Your task to perform on an android device: Open CNN.com Image 0: 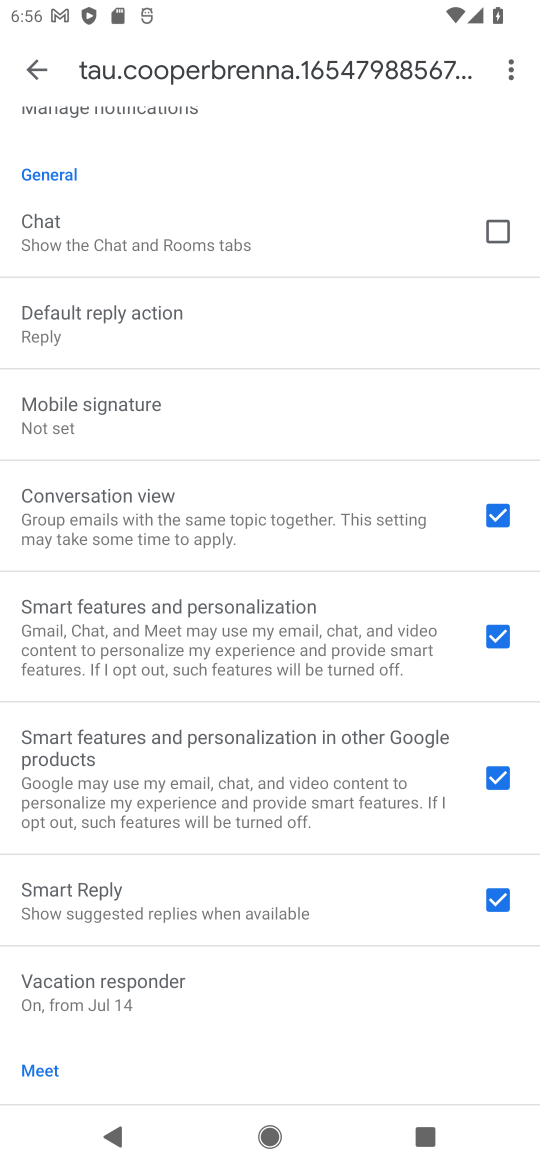
Step 0: press home button
Your task to perform on an android device: Open CNN.com Image 1: 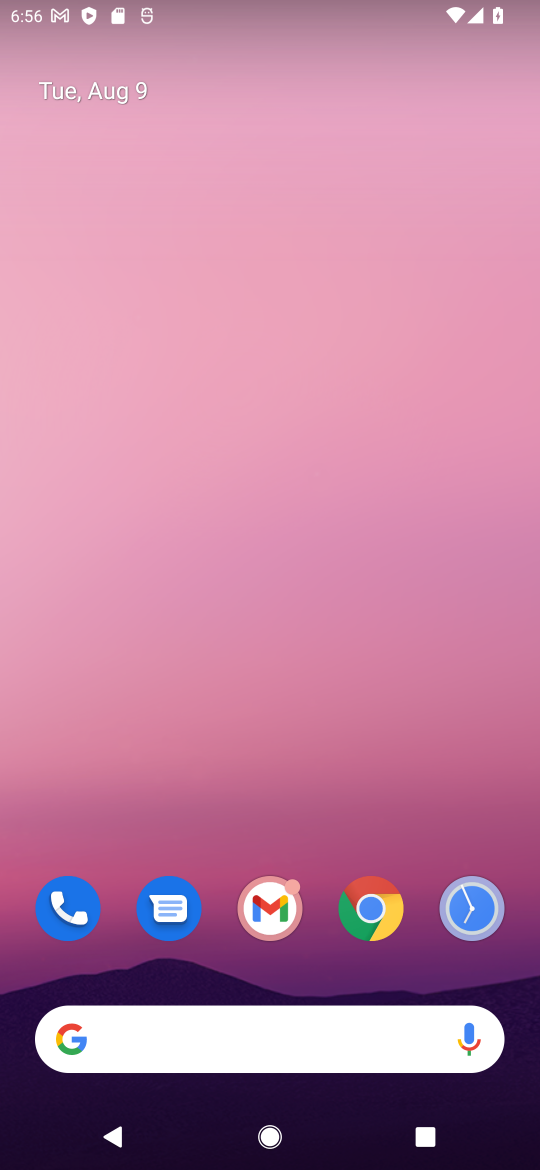
Step 1: drag from (287, 990) to (288, 84)
Your task to perform on an android device: Open CNN.com Image 2: 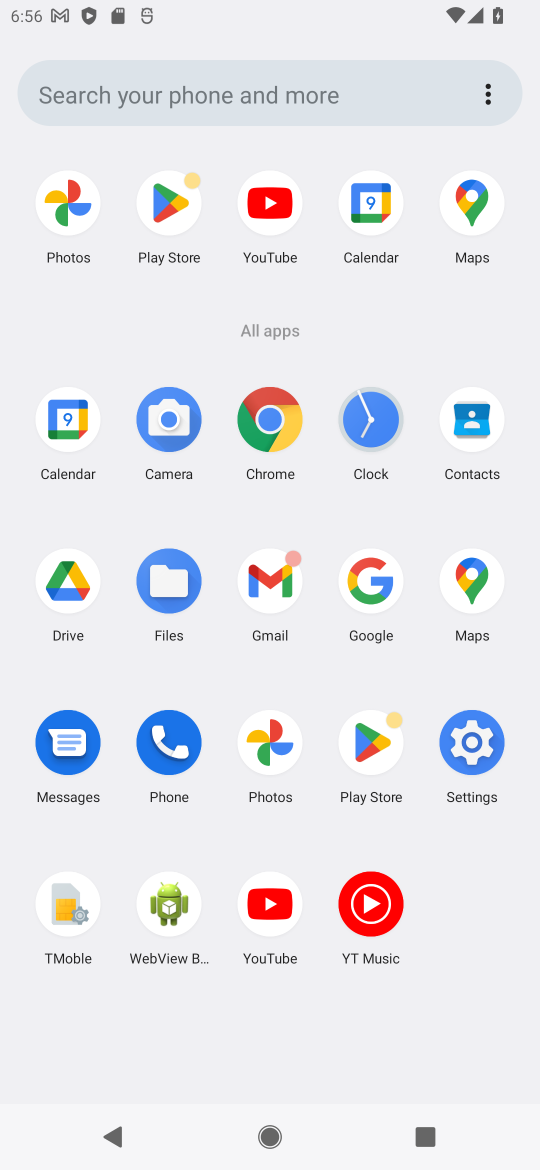
Step 2: click (265, 416)
Your task to perform on an android device: Open CNN.com Image 3: 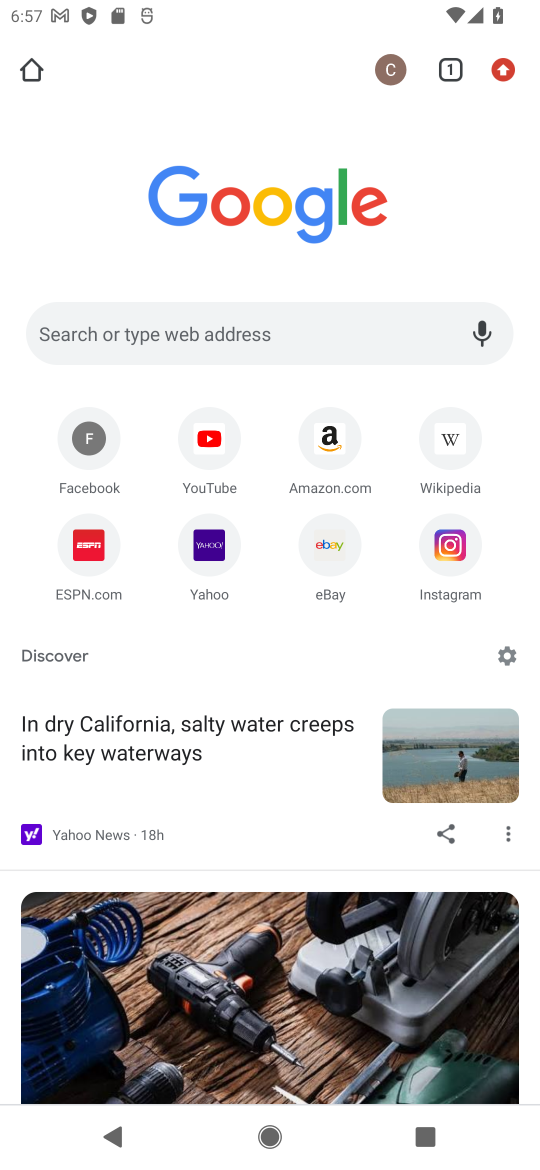
Step 3: click (252, 329)
Your task to perform on an android device: Open CNN.com Image 4: 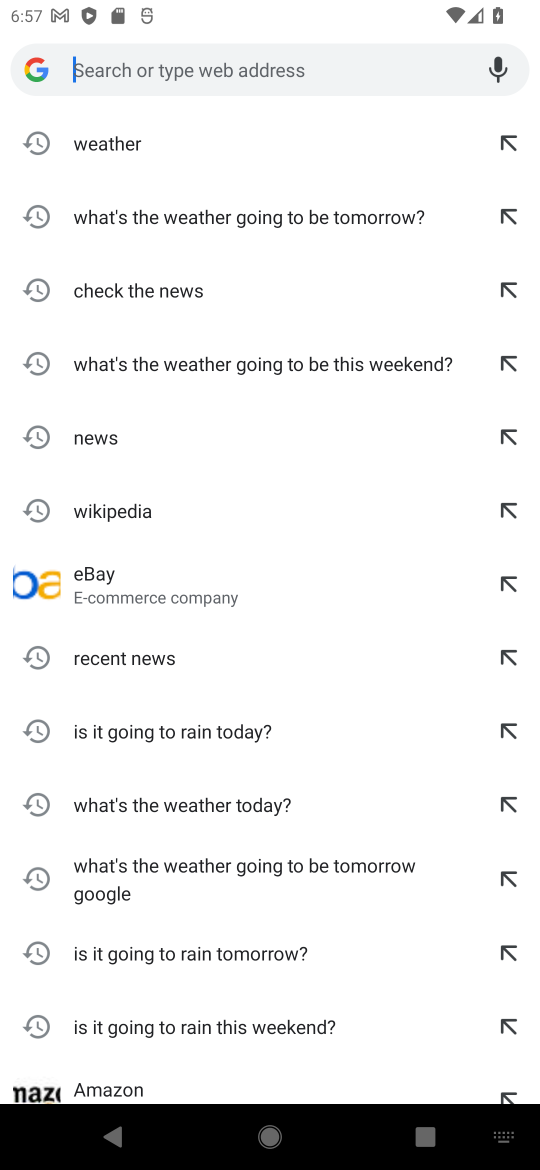
Step 4: type "CNN.com"
Your task to perform on an android device: Open CNN.com Image 5: 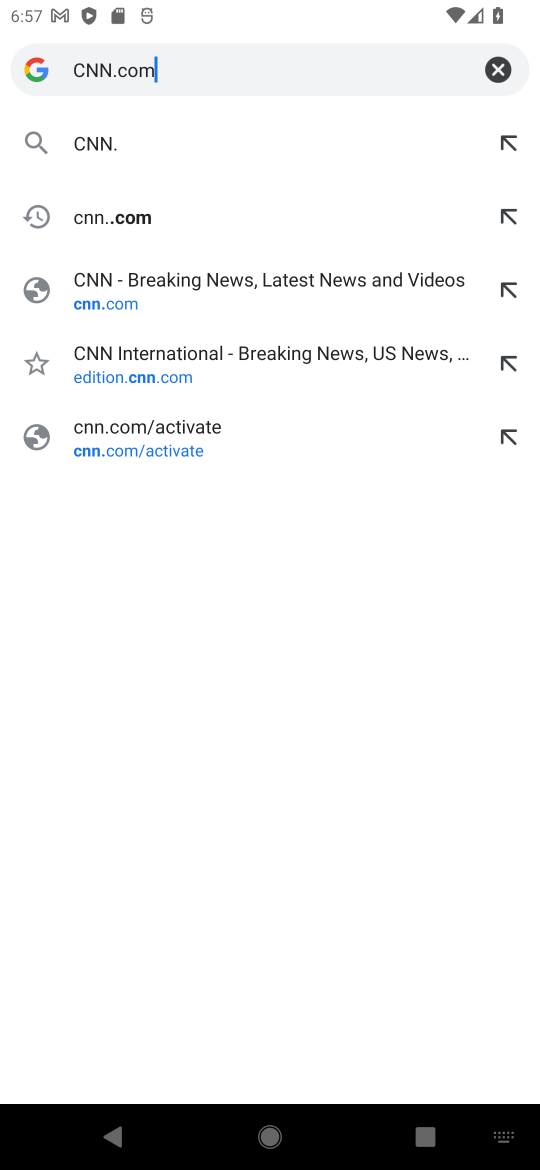
Step 5: type ""
Your task to perform on an android device: Open CNN.com Image 6: 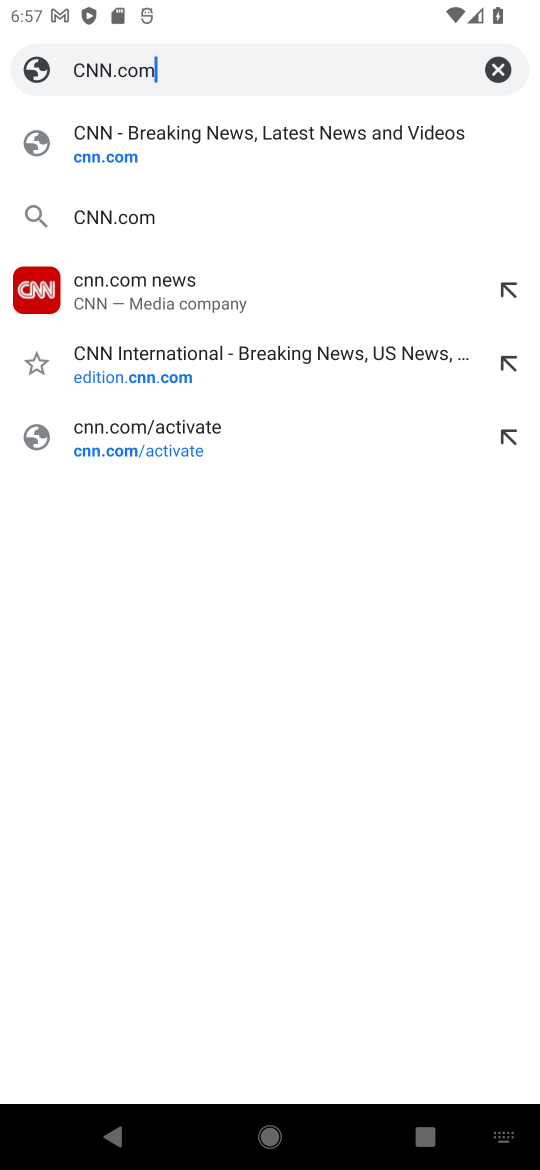
Step 6: click (136, 129)
Your task to perform on an android device: Open CNN.com Image 7: 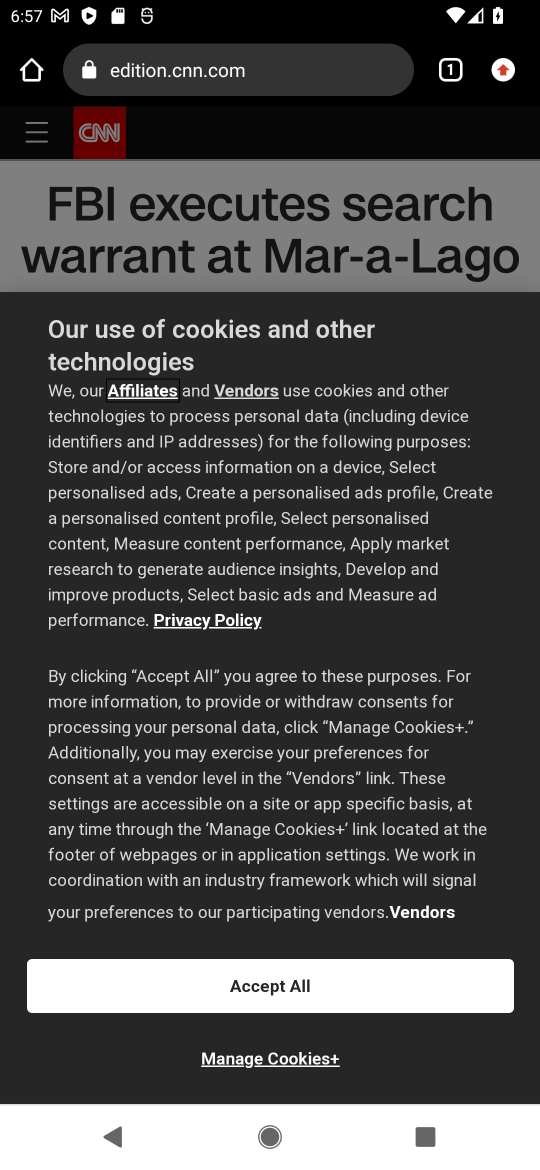
Step 7: task complete